Your task to perform on an android device: toggle notifications settings in the gmail app Image 0: 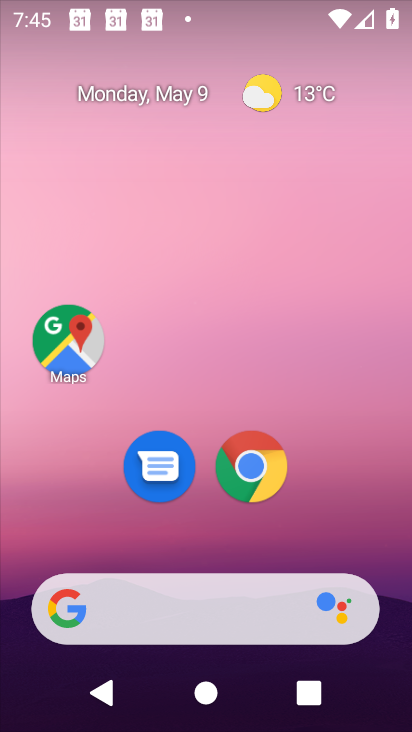
Step 0: drag from (357, 528) to (354, 144)
Your task to perform on an android device: toggle notifications settings in the gmail app Image 1: 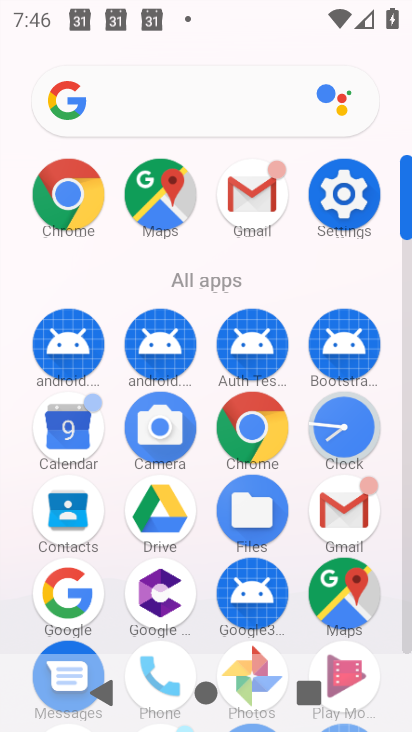
Step 1: click (252, 179)
Your task to perform on an android device: toggle notifications settings in the gmail app Image 2: 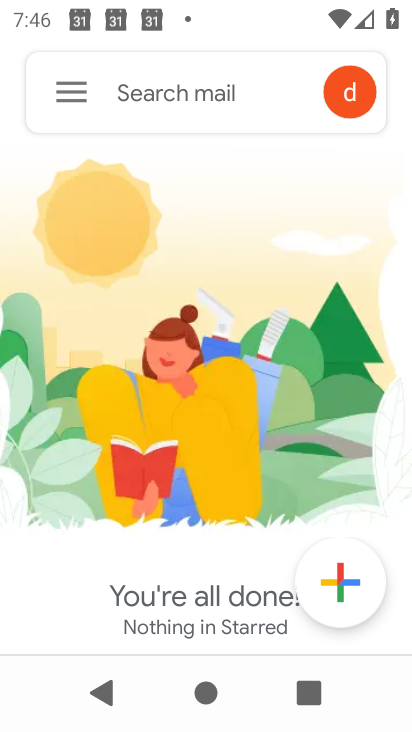
Step 2: click (67, 86)
Your task to perform on an android device: toggle notifications settings in the gmail app Image 3: 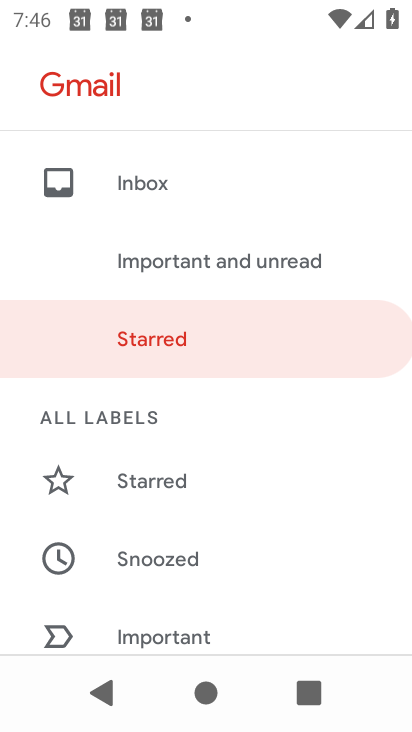
Step 3: drag from (252, 569) to (300, 126)
Your task to perform on an android device: toggle notifications settings in the gmail app Image 4: 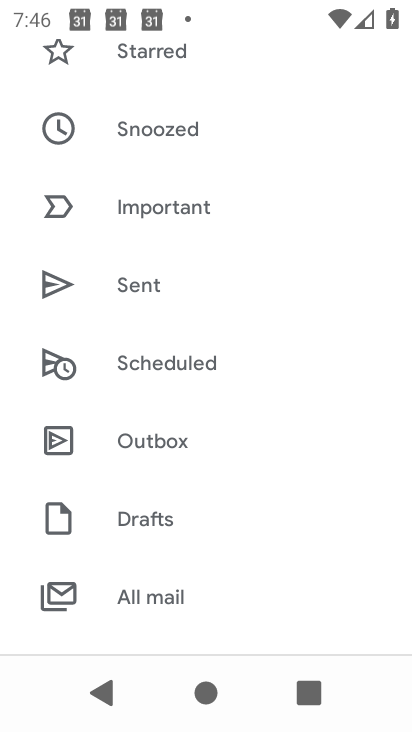
Step 4: drag from (243, 615) to (276, 222)
Your task to perform on an android device: toggle notifications settings in the gmail app Image 5: 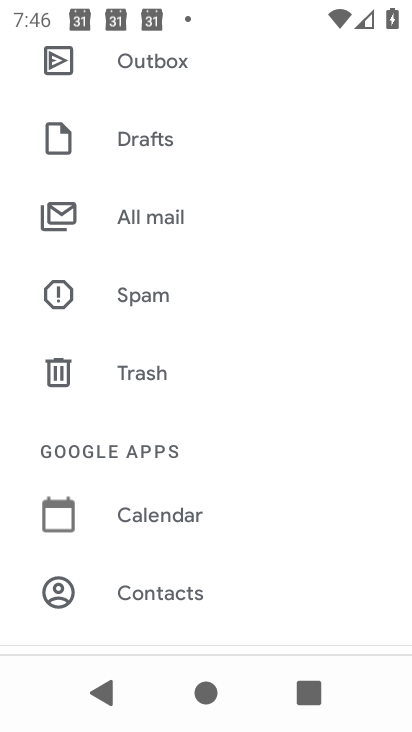
Step 5: drag from (211, 542) to (245, 248)
Your task to perform on an android device: toggle notifications settings in the gmail app Image 6: 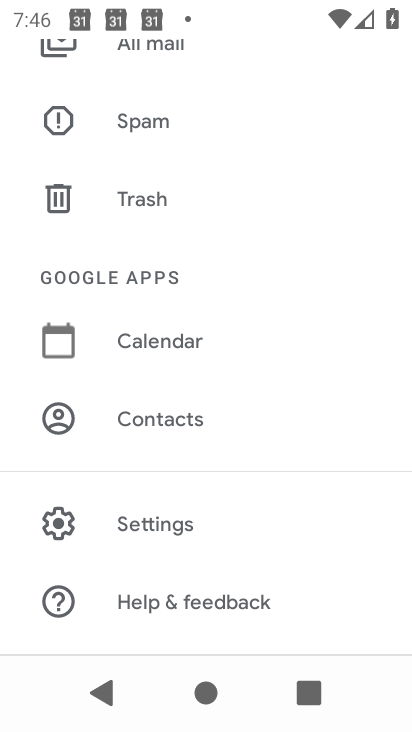
Step 6: click (193, 531)
Your task to perform on an android device: toggle notifications settings in the gmail app Image 7: 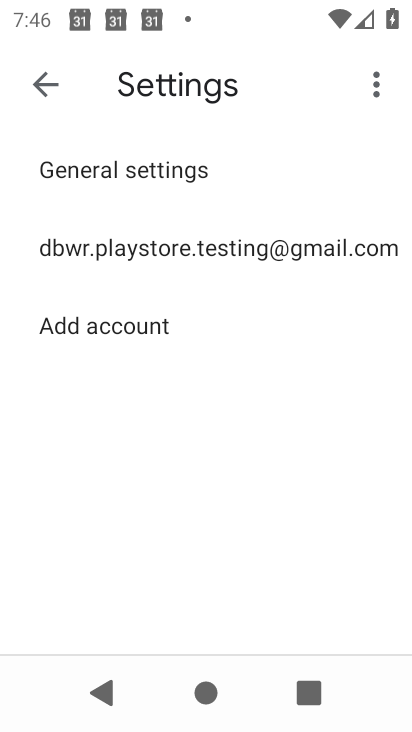
Step 7: click (202, 234)
Your task to perform on an android device: toggle notifications settings in the gmail app Image 8: 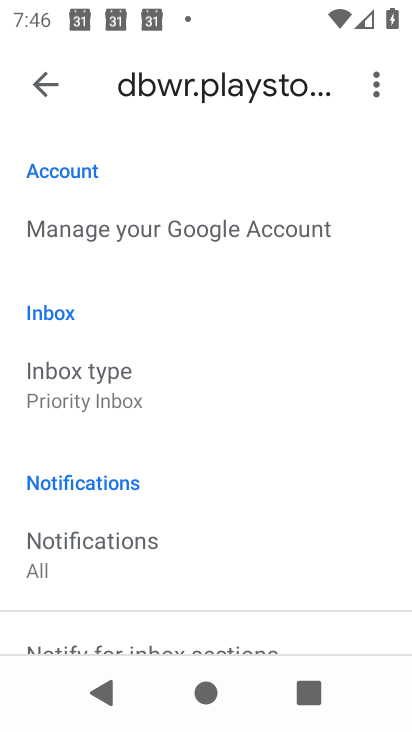
Step 8: click (133, 549)
Your task to perform on an android device: toggle notifications settings in the gmail app Image 9: 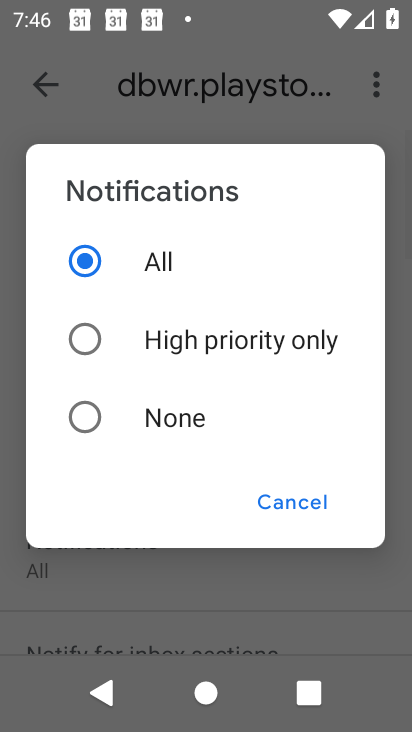
Step 9: click (132, 416)
Your task to perform on an android device: toggle notifications settings in the gmail app Image 10: 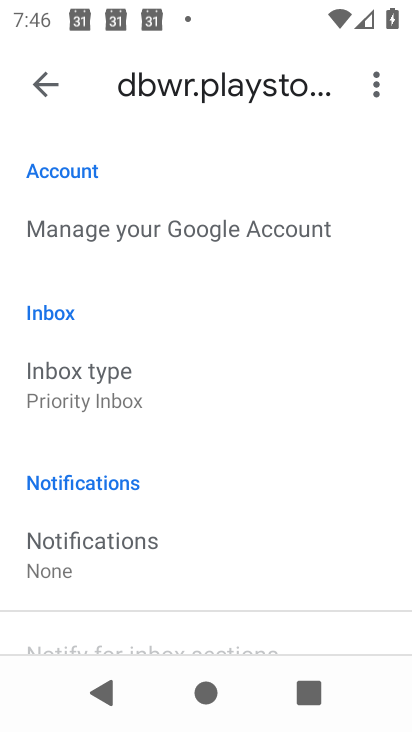
Step 10: task complete